Your task to perform on an android device: Turn off the flashlight Image 0: 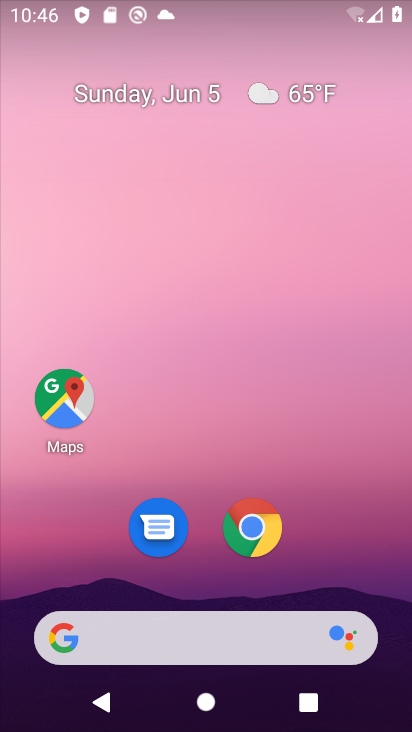
Step 0: drag from (331, 554) to (323, 13)
Your task to perform on an android device: Turn off the flashlight Image 1: 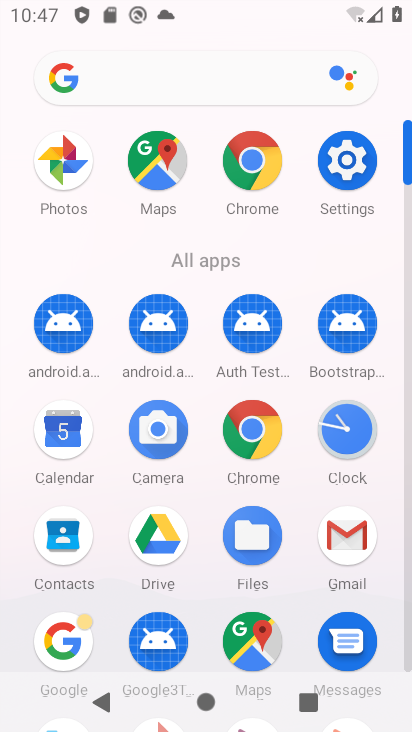
Step 1: click (341, 164)
Your task to perform on an android device: Turn off the flashlight Image 2: 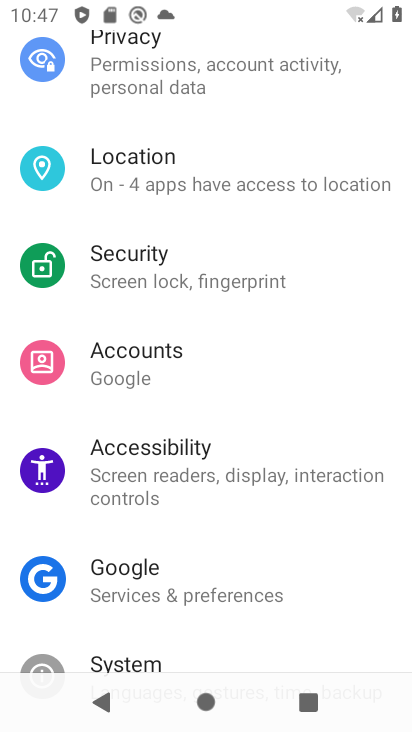
Step 2: drag from (270, 153) to (276, 520)
Your task to perform on an android device: Turn off the flashlight Image 3: 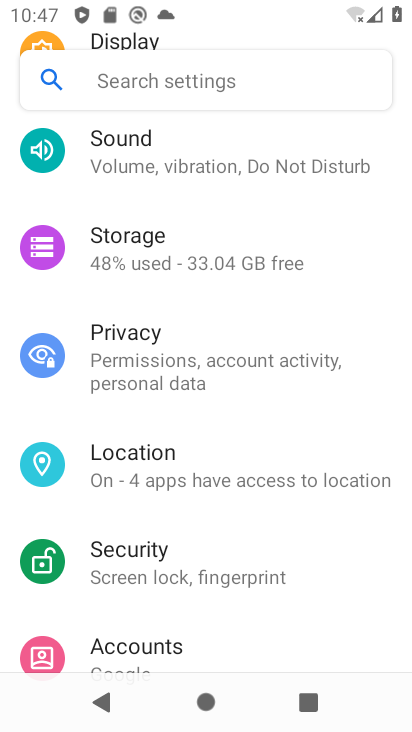
Step 3: drag from (255, 144) to (251, 554)
Your task to perform on an android device: Turn off the flashlight Image 4: 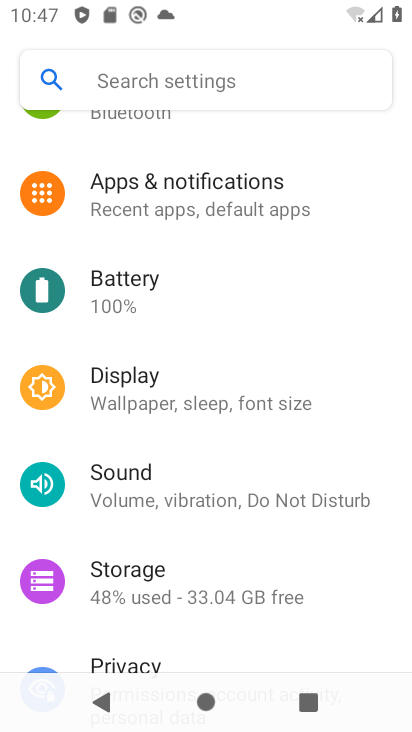
Step 4: click (268, 197)
Your task to perform on an android device: Turn off the flashlight Image 5: 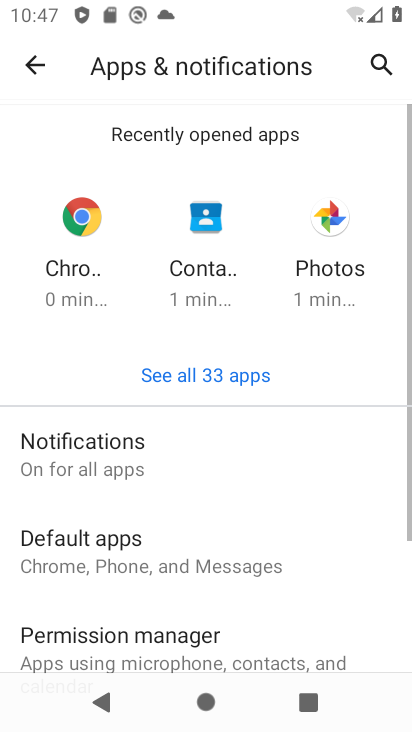
Step 5: drag from (285, 563) to (274, 167)
Your task to perform on an android device: Turn off the flashlight Image 6: 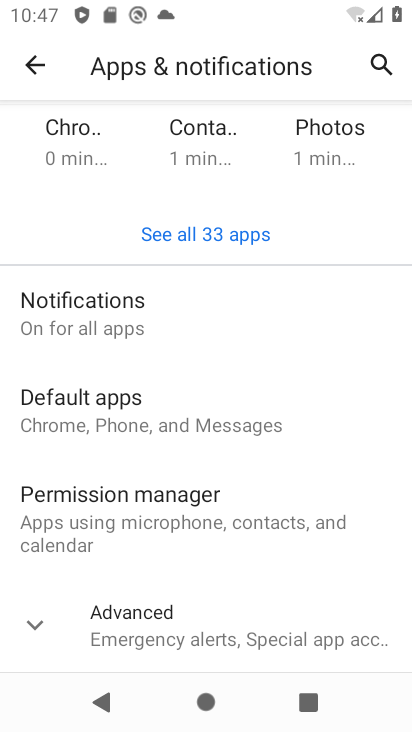
Step 6: click (233, 645)
Your task to perform on an android device: Turn off the flashlight Image 7: 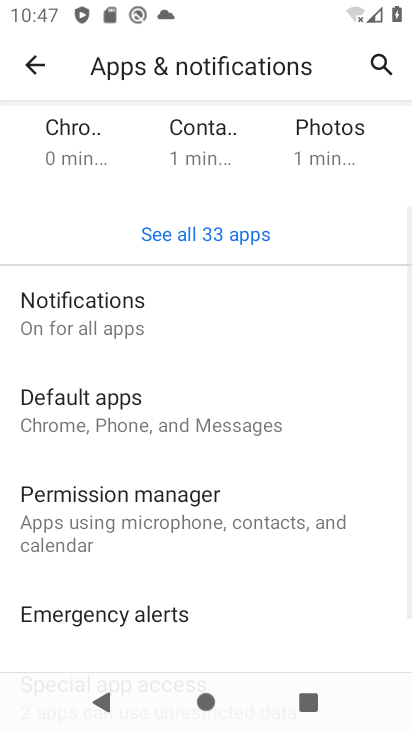
Step 7: drag from (263, 589) to (279, 223)
Your task to perform on an android device: Turn off the flashlight Image 8: 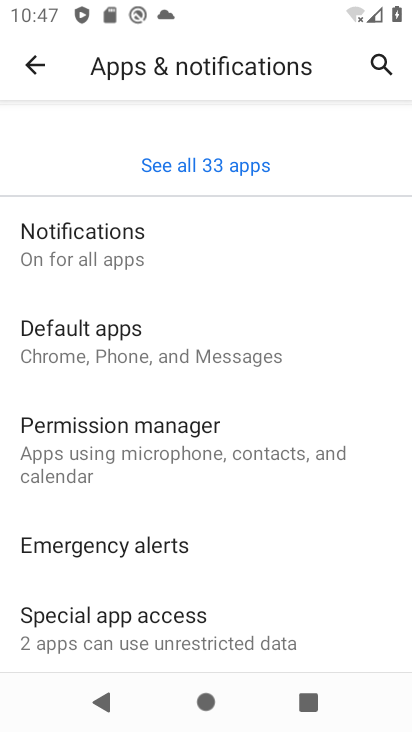
Step 8: click (173, 620)
Your task to perform on an android device: Turn off the flashlight Image 9: 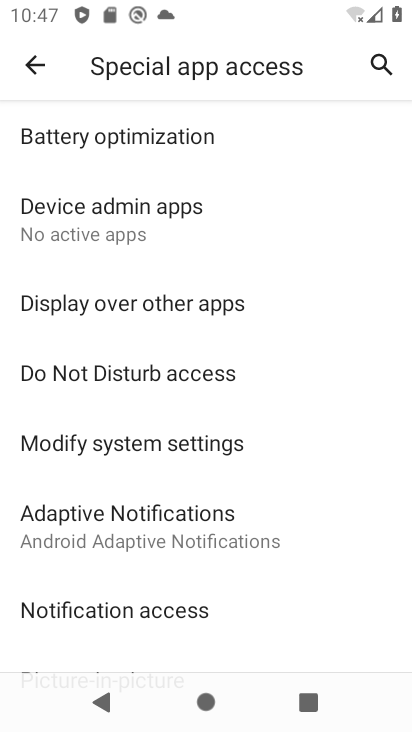
Step 9: task complete